Your task to perform on an android device: Set the phone to "Do not disturb". Image 0: 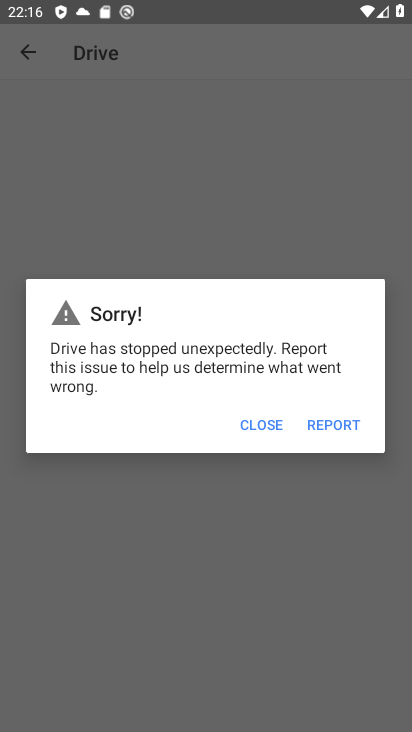
Step 0: press home button
Your task to perform on an android device: Set the phone to "Do not disturb". Image 1: 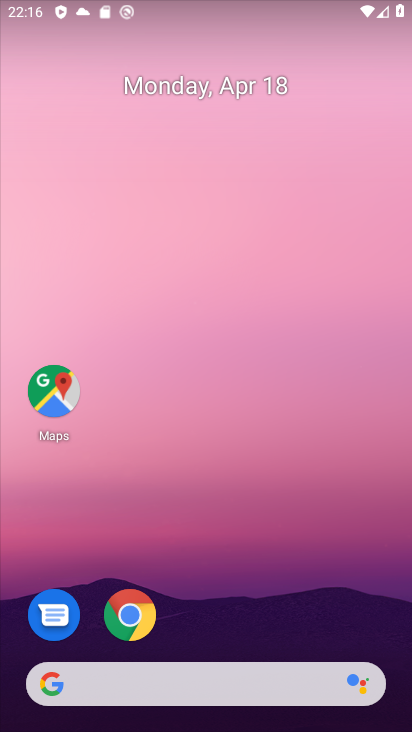
Step 1: drag from (279, 590) to (236, 16)
Your task to perform on an android device: Set the phone to "Do not disturb". Image 2: 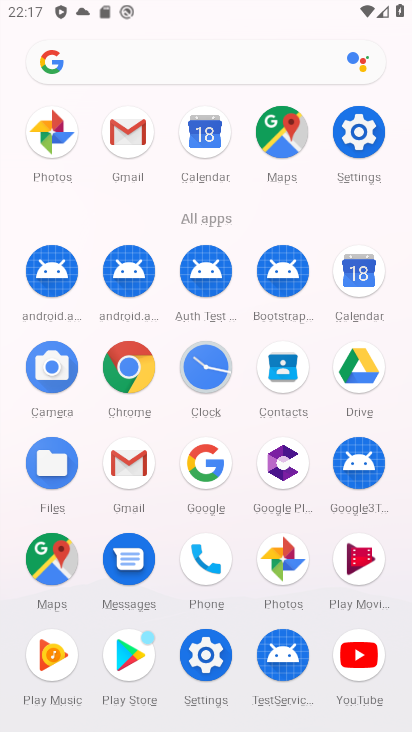
Step 2: click (360, 137)
Your task to perform on an android device: Set the phone to "Do not disturb". Image 3: 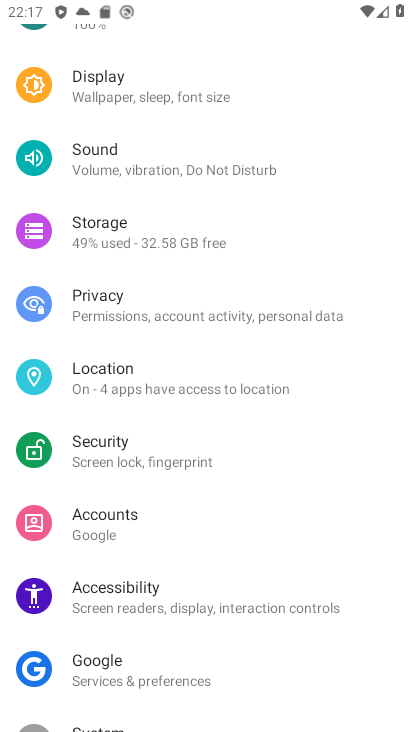
Step 3: click (137, 158)
Your task to perform on an android device: Set the phone to "Do not disturb". Image 4: 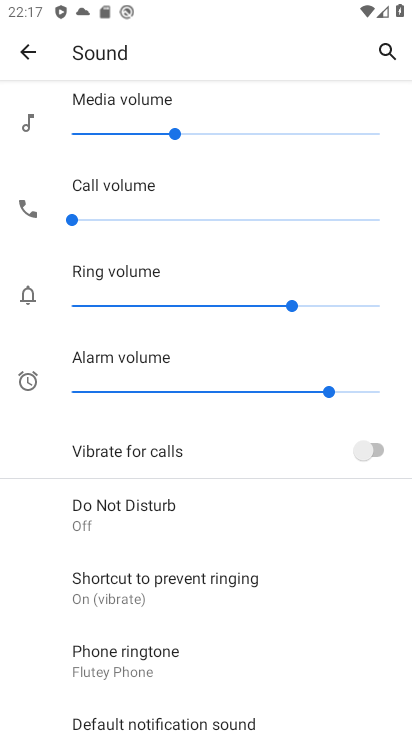
Step 4: click (137, 513)
Your task to perform on an android device: Set the phone to "Do not disturb". Image 5: 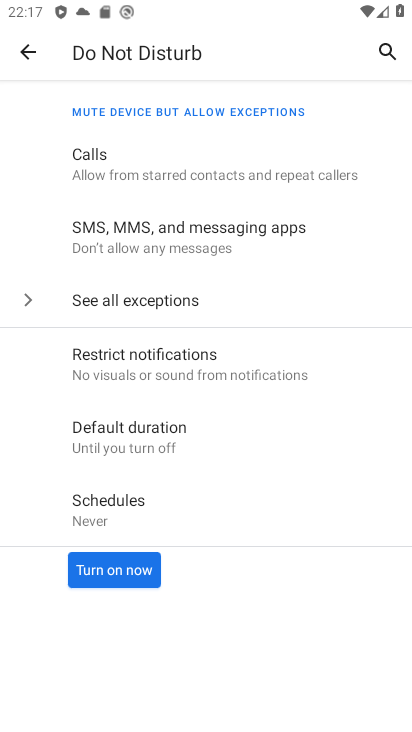
Step 5: click (123, 560)
Your task to perform on an android device: Set the phone to "Do not disturb". Image 6: 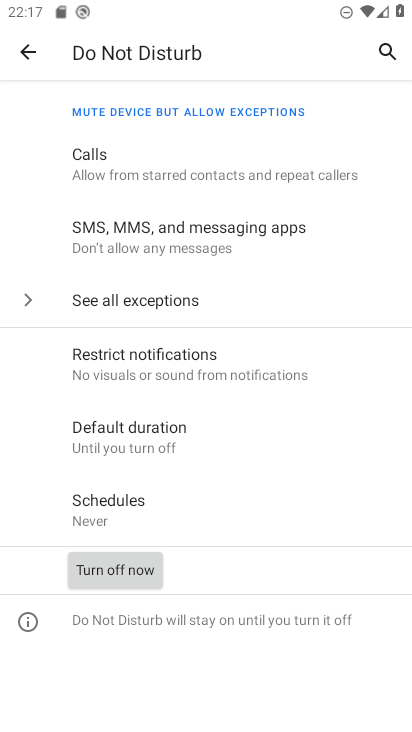
Step 6: task complete